Your task to perform on an android device: Add "asus rog" to the cart on amazon.com Image 0: 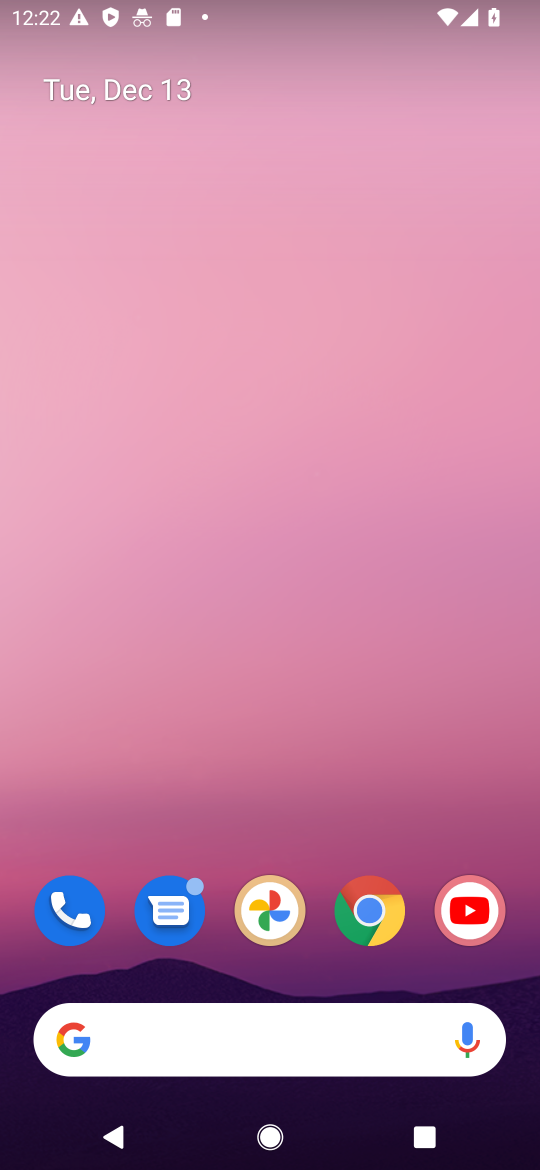
Step 0: click (363, 915)
Your task to perform on an android device: Add "asus rog" to the cart on amazon.com Image 1: 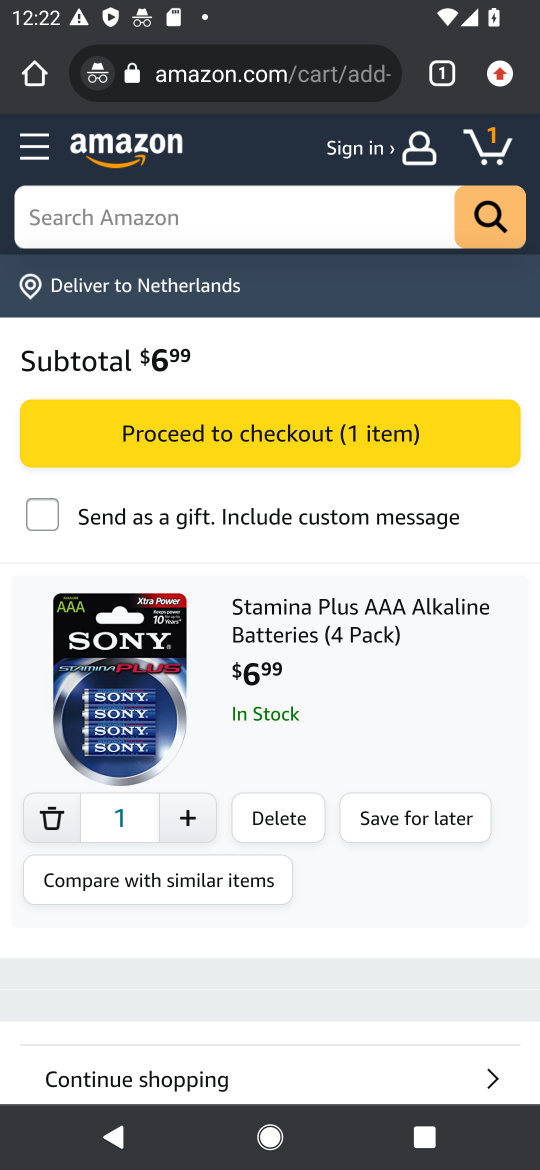
Step 1: click (251, 220)
Your task to perform on an android device: Add "asus rog" to the cart on amazon.com Image 2: 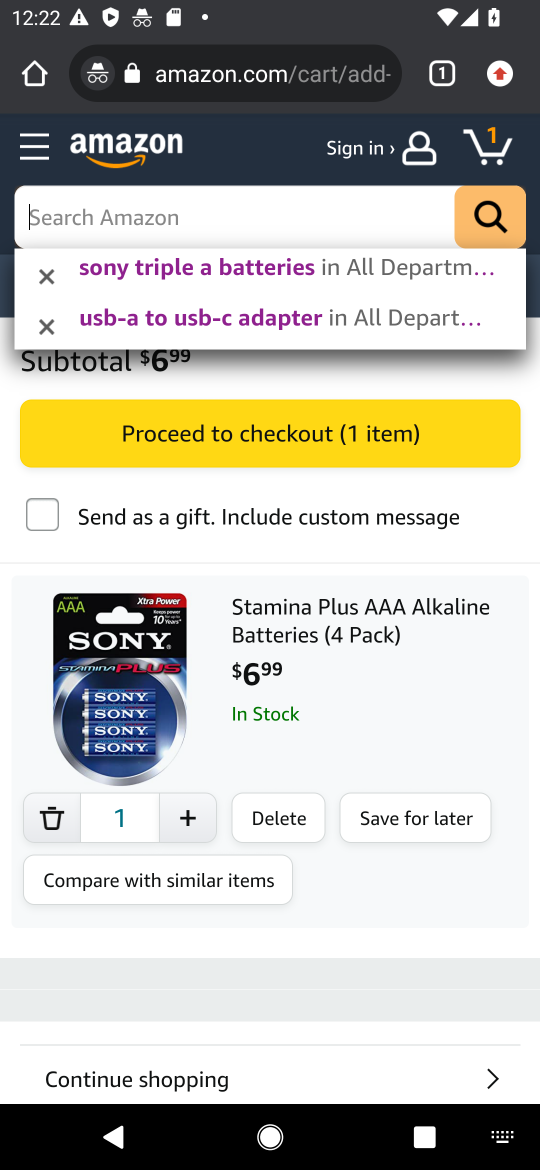
Step 2: type "asus rog"
Your task to perform on an android device: Add "asus rog" to the cart on amazon.com Image 3: 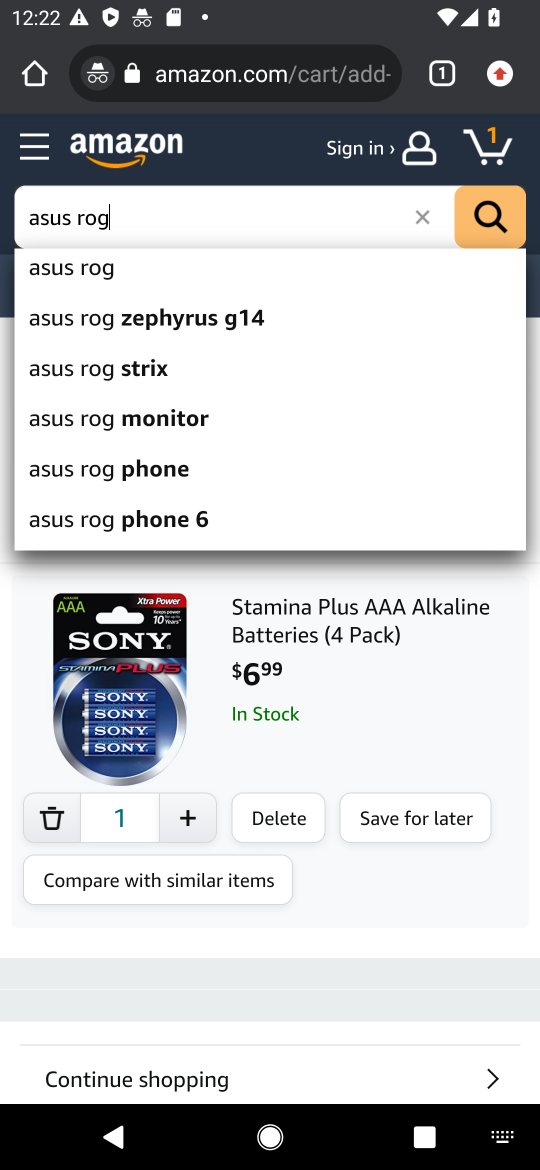
Step 3: click (122, 266)
Your task to perform on an android device: Add "asus rog" to the cart on amazon.com Image 4: 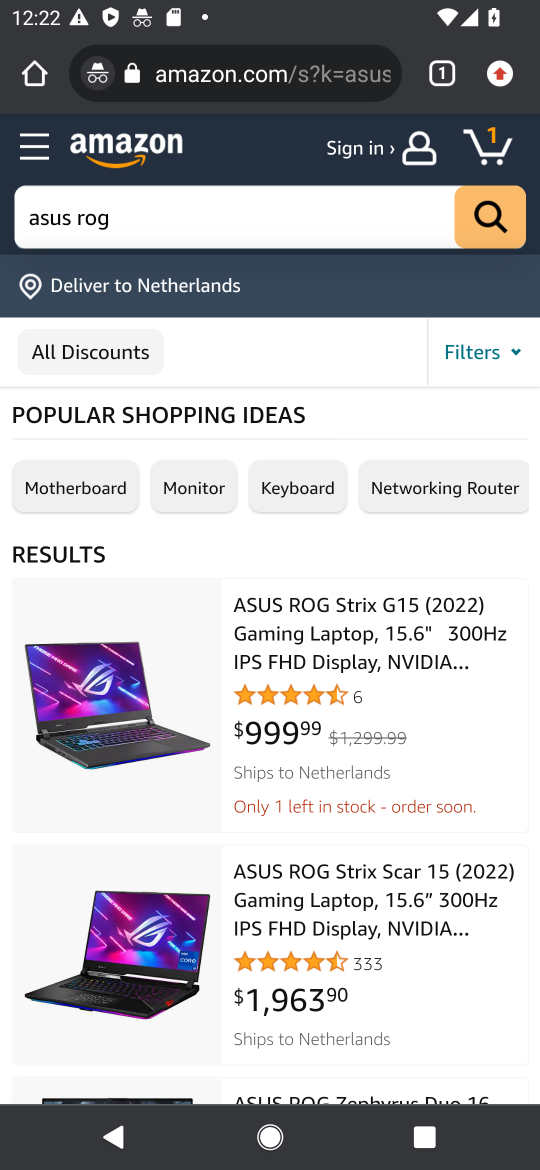
Step 4: click (455, 673)
Your task to perform on an android device: Add "asus rog" to the cart on amazon.com Image 5: 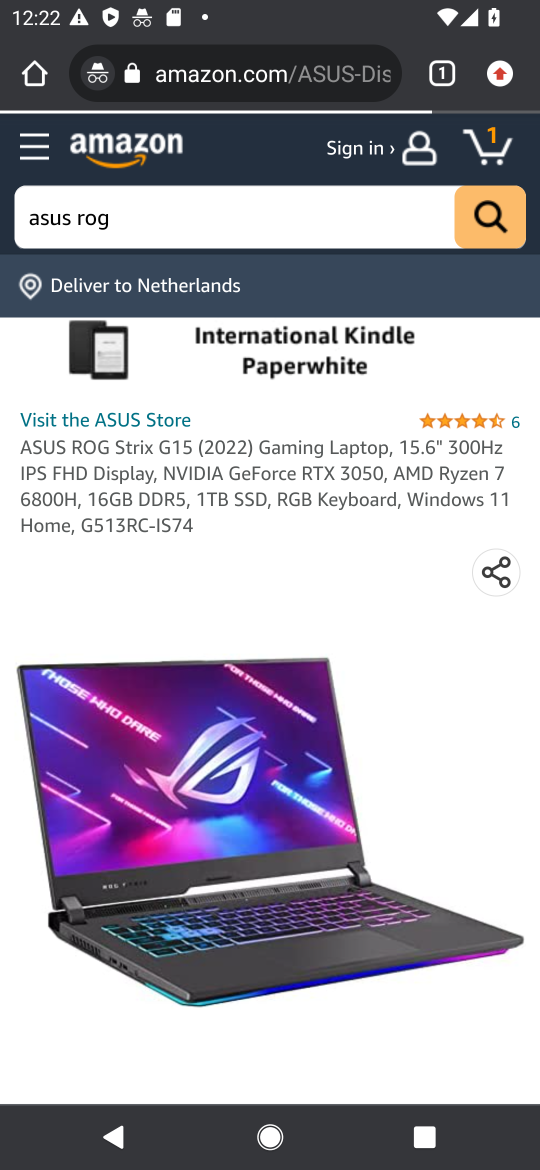
Step 5: drag from (430, 1012) to (389, 156)
Your task to perform on an android device: Add "asus rog" to the cart on amazon.com Image 6: 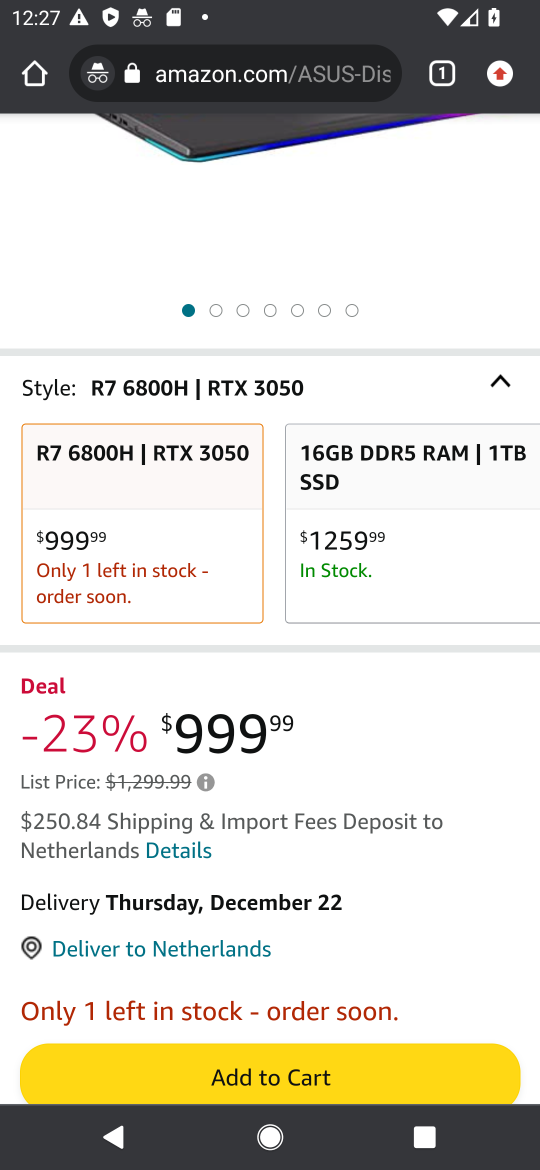
Step 6: click (293, 1073)
Your task to perform on an android device: Add "asus rog" to the cart on amazon.com Image 7: 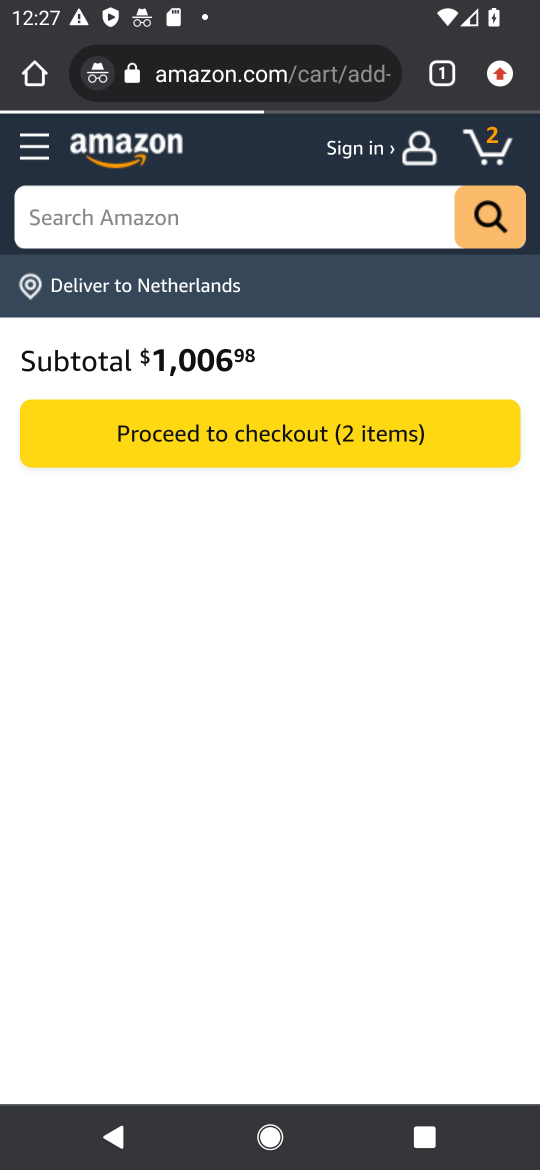
Step 7: task complete